Your task to perform on an android device: open sync settings in chrome Image 0: 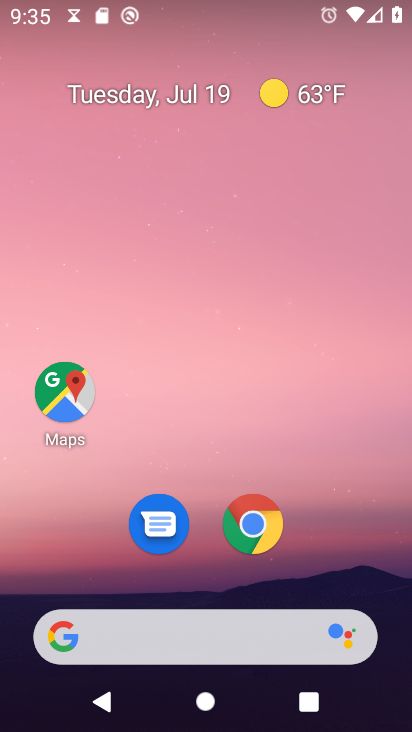
Step 0: press home button
Your task to perform on an android device: open sync settings in chrome Image 1: 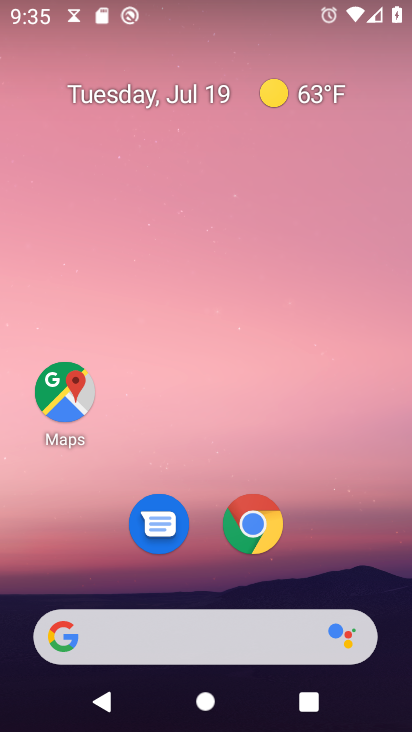
Step 1: click (246, 534)
Your task to perform on an android device: open sync settings in chrome Image 2: 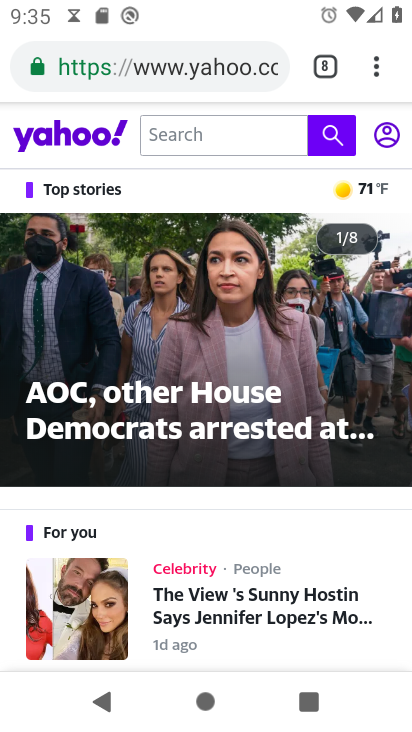
Step 2: drag from (371, 68) to (176, 529)
Your task to perform on an android device: open sync settings in chrome Image 3: 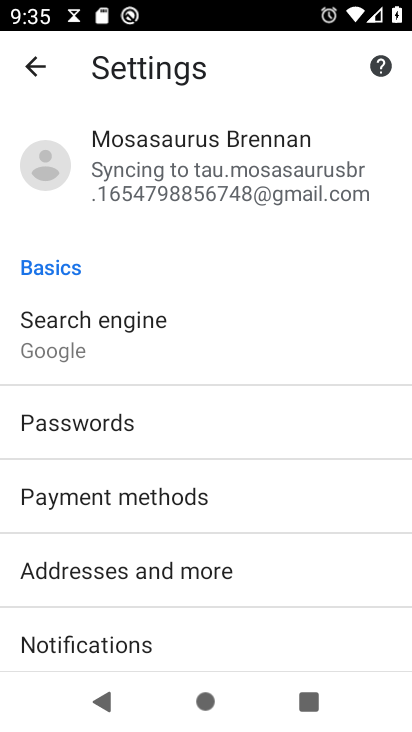
Step 3: click (179, 204)
Your task to perform on an android device: open sync settings in chrome Image 4: 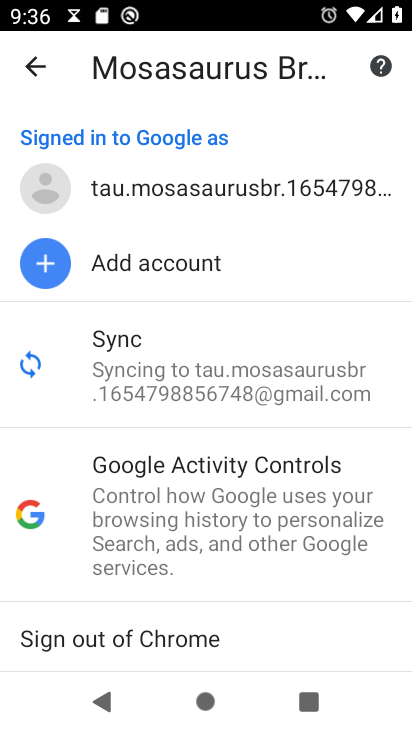
Step 4: click (153, 340)
Your task to perform on an android device: open sync settings in chrome Image 5: 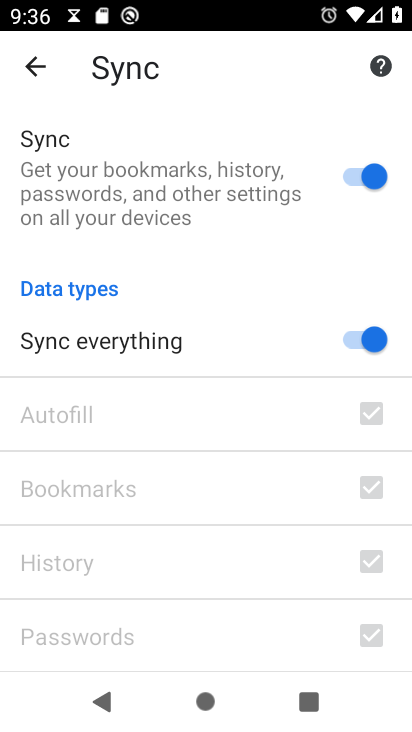
Step 5: task complete